Your task to perform on an android device: Clear the cart on newegg. Add jbl charge 4 to the cart on newegg Image 0: 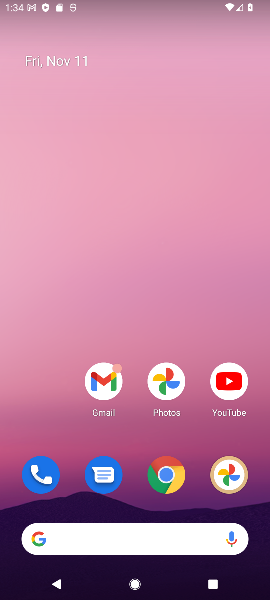
Step 0: drag from (125, 494) to (113, 73)
Your task to perform on an android device: Clear the cart on newegg. Add jbl charge 4 to the cart on newegg Image 1: 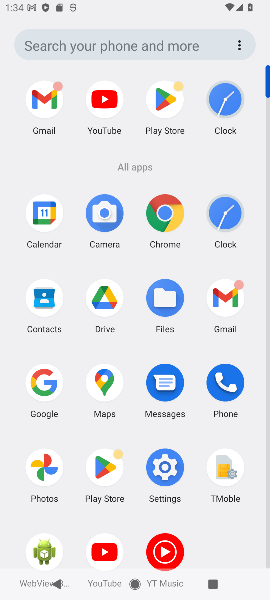
Step 1: click (168, 215)
Your task to perform on an android device: Clear the cart on newegg. Add jbl charge 4 to the cart on newegg Image 2: 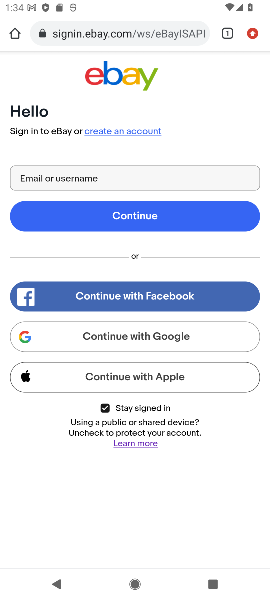
Step 2: click (141, 33)
Your task to perform on an android device: Clear the cart on newegg. Add jbl charge 4 to the cart on newegg Image 3: 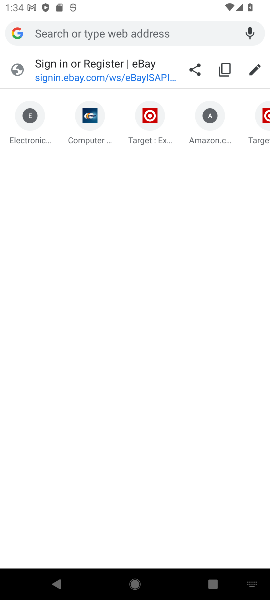
Step 3: type "newegg"
Your task to perform on an android device: Clear the cart on newegg. Add jbl charge 4 to the cart on newegg Image 4: 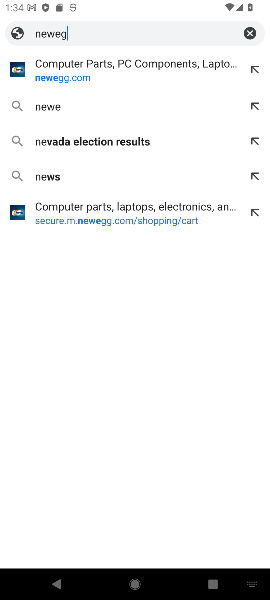
Step 4: press enter
Your task to perform on an android device: Clear the cart on newegg. Add jbl charge 4 to the cart on newegg Image 5: 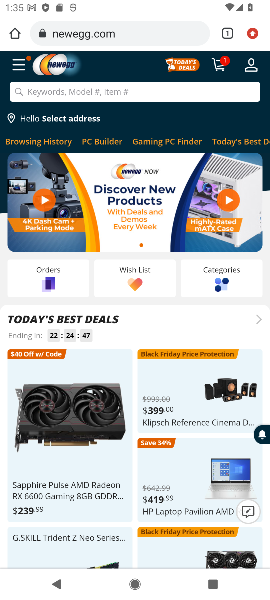
Step 5: click (225, 69)
Your task to perform on an android device: Clear the cart on newegg. Add jbl charge 4 to the cart on newegg Image 6: 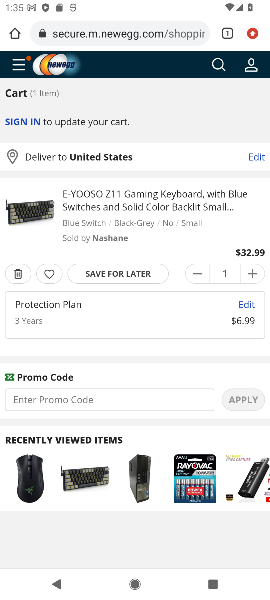
Step 6: click (15, 275)
Your task to perform on an android device: Clear the cart on newegg. Add jbl charge 4 to the cart on newegg Image 7: 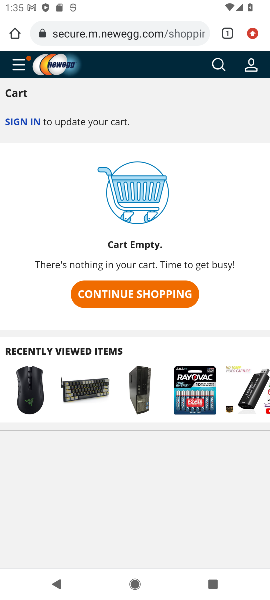
Step 7: click (211, 67)
Your task to perform on an android device: Clear the cart on newegg. Add jbl charge 4 to the cart on newegg Image 8: 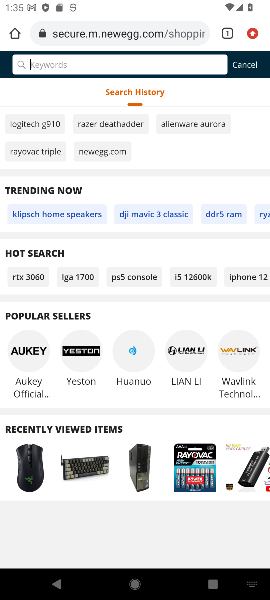
Step 8: type " jbl charge 4"
Your task to perform on an android device: Clear the cart on newegg. Add jbl charge 4 to the cart on newegg Image 9: 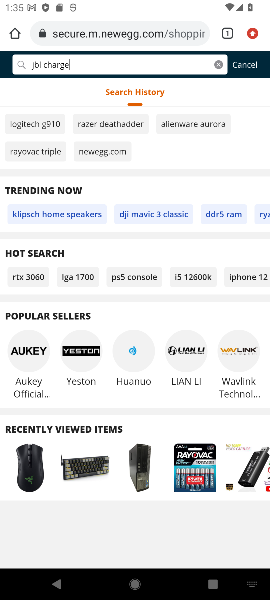
Step 9: press enter
Your task to perform on an android device: Clear the cart on newegg. Add jbl charge 4 to the cart on newegg Image 10: 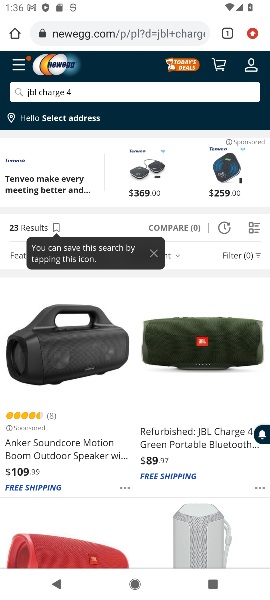
Step 10: click (78, 448)
Your task to perform on an android device: Clear the cart on newegg. Add jbl charge 4 to the cart on newegg Image 11: 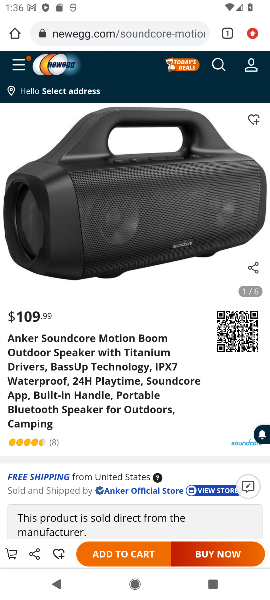
Step 11: click (139, 572)
Your task to perform on an android device: Clear the cart on newegg. Add jbl charge 4 to the cart on newegg Image 12: 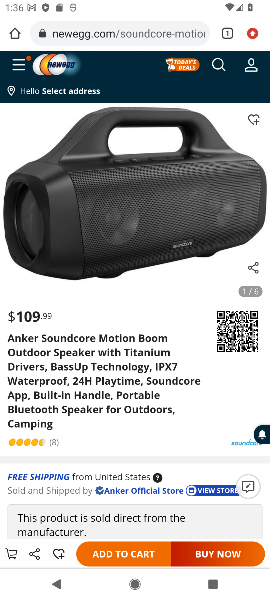
Step 12: click (134, 564)
Your task to perform on an android device: Clear the cart on newegg. Add jbl charge 4 to the cart on newegg Image 13: 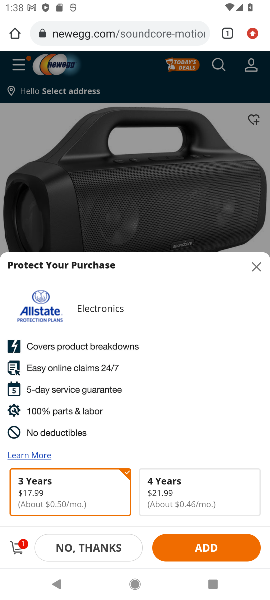
Step 13: click (188, 544)
Your task to perform on an android device: Clear the cart on newegg. Add jbl charge 4 to the cart on newegg Image 14: 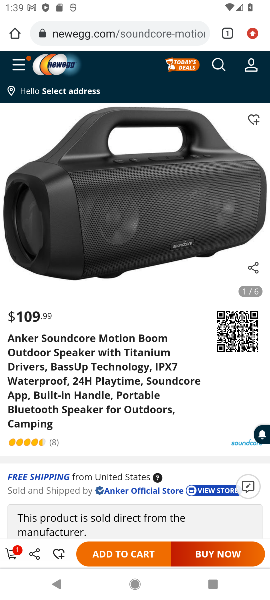
Step 14: task complete